Your task to perform on an android device: see creations saved in the google photos Image 0: 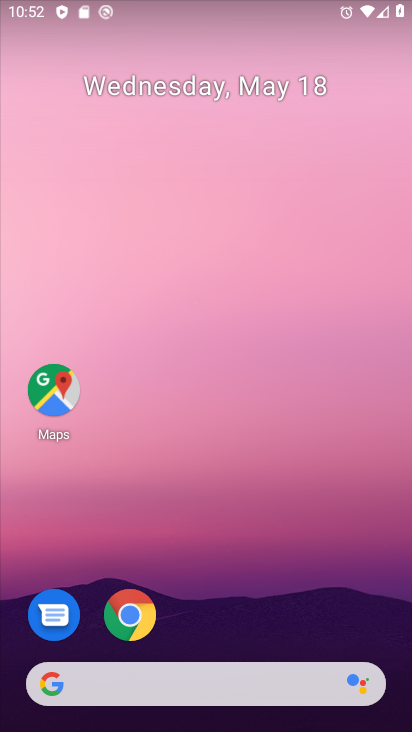
Step 0: drag from (216, 668) to (204, 249)
Your task to perform on an android device: see creations saved in the google photos Image 1: 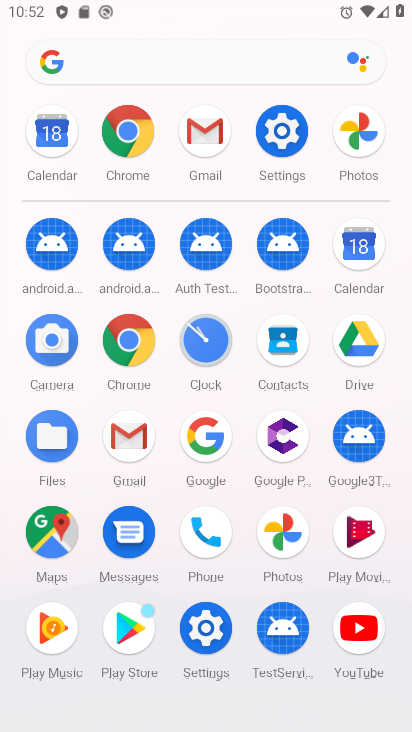
Step 1: click (278, 543)
Your task to perform on an android device: see creations saved in the google photos Image 2: 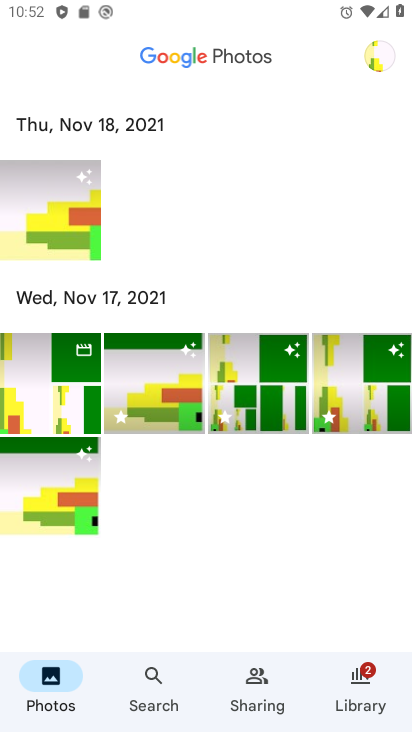
Step 2: click (365, 691)
Your task to perform on an android device: see creations saved in the google photos Image 3: 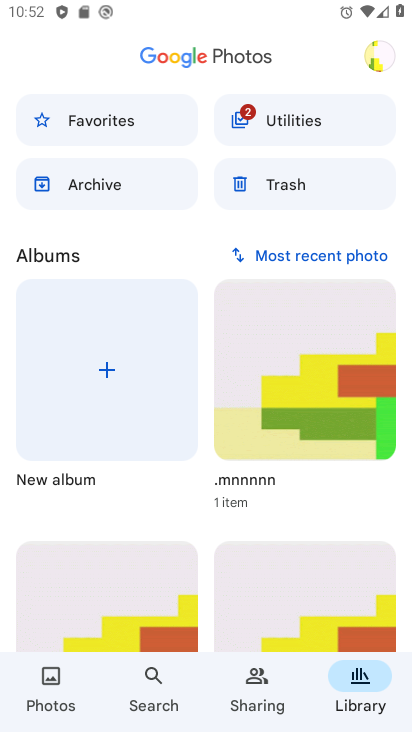
Step 3: task complete